Your task to perform on an android device: create a new album in the google photos Image 0: 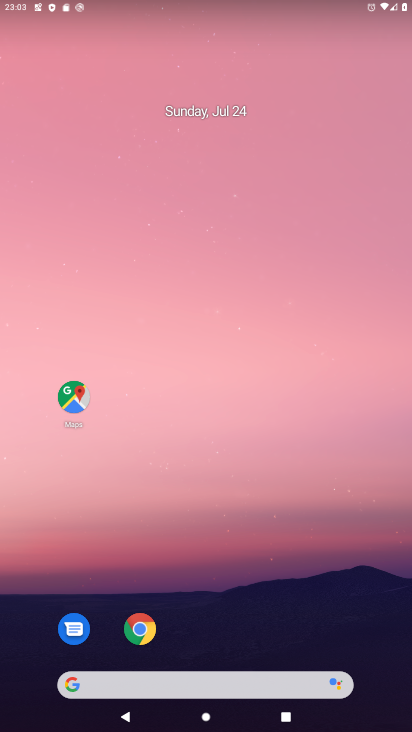
Step 0: drag from (173, 656) to (357, 153)
Your task to perform on an android device: create a new album in the google photos Image 1: 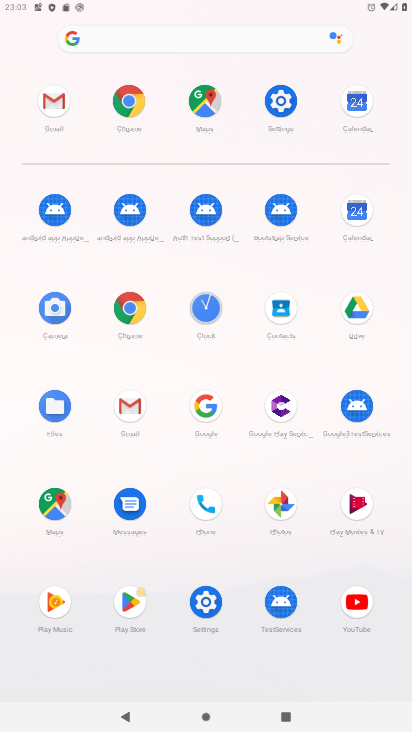
Step 1: drag from (157, 584) to (258, 161)
Your task to perform on an android device: create a new album in the google photos Image 2: 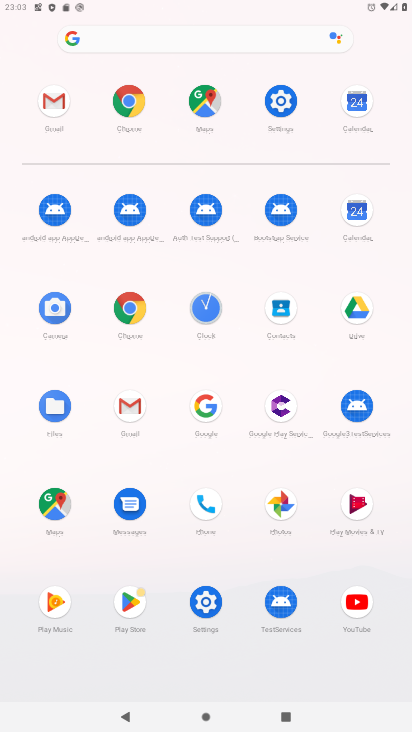
Step 2: click (274, 503)
Your task to perform on an android device: create a new album in the google photos Image 3: 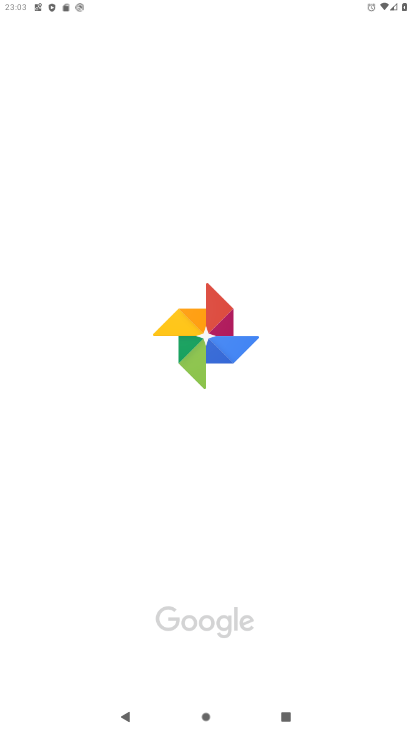
Step 3: drag from (191, 568) to (203, 323)
Your task to perform on an android device: create a new album in the google photos Image 4: 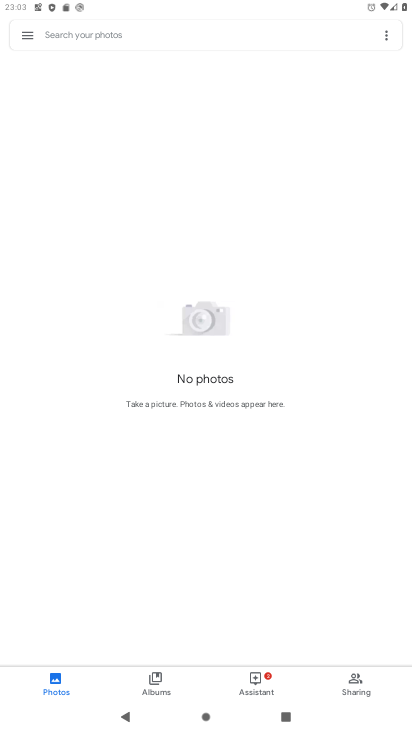
Step 4: click (146, 682)
Your task to perform on an android device: create a new album in the google photos Image 5: 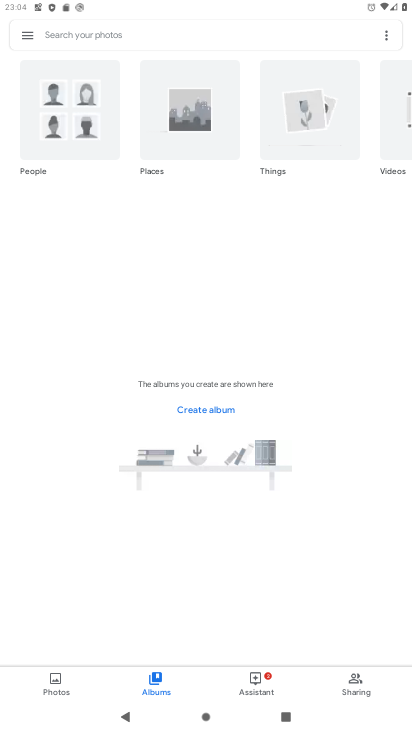
Step 5: click (201, 406)
Your task to perform on an android device: create a new album in the google photos Image 6: 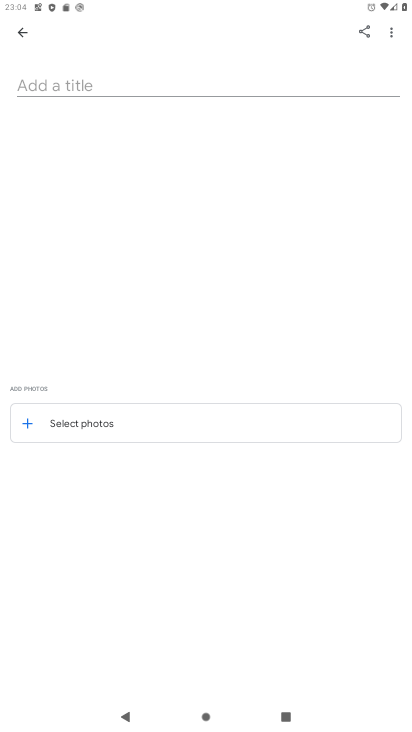
Step 6: drag from (141, 567) to (179, 261)
Your task to perform on an android device: create a new album in the google photos Image 7: 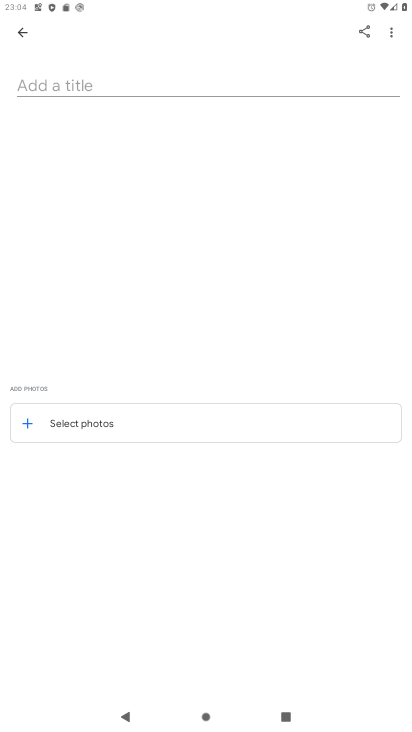
Step 7: click (27, 422)
Your task to perform on an android device: create a new album in the google photos Image 8: 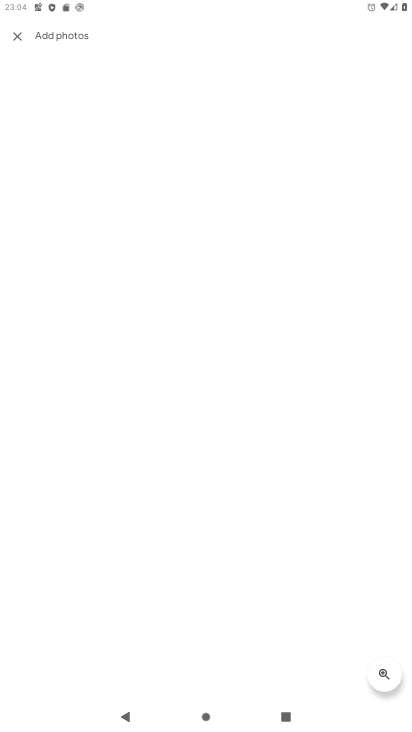
Step 8: drag from (143, 593) to (173, 309)
Your task to perform on an android device: create a new album in the google photos Image 9: 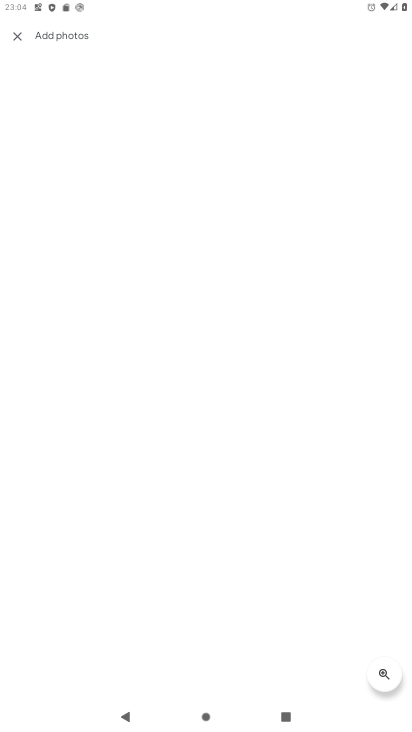
Step 9: click (175, 334)
Your task to perform on an android device: create a new album in the google photos Image 10: 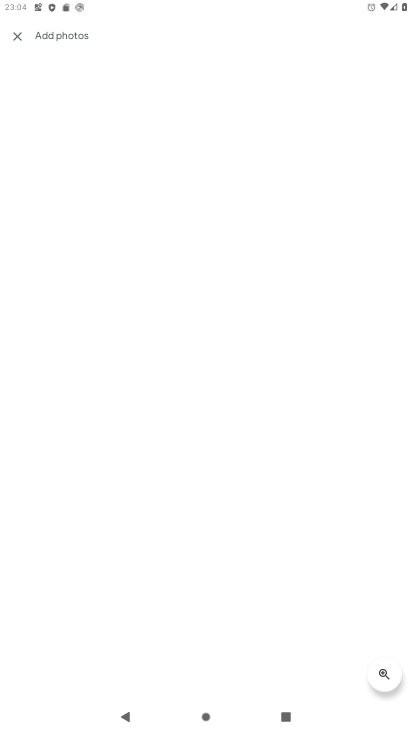
Step 10: task complete